Your task to perform on an android device: turn on the 24-hour format for clock Image 0: 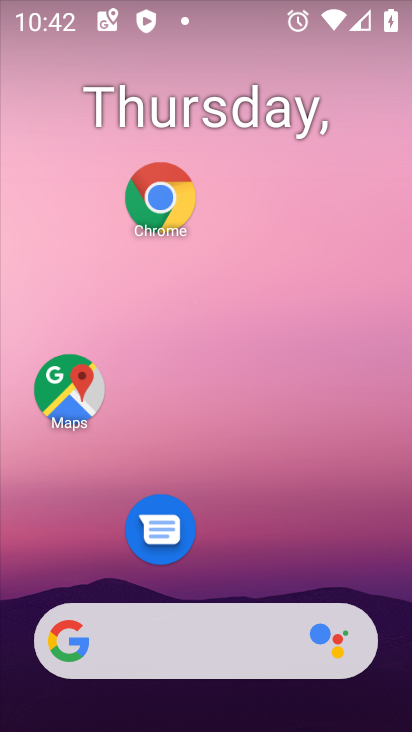
Step 0: drag from (243, 541) to (221, 116)
Your task to perform on an android device: turn on the 24-hour format for clock Image 1: 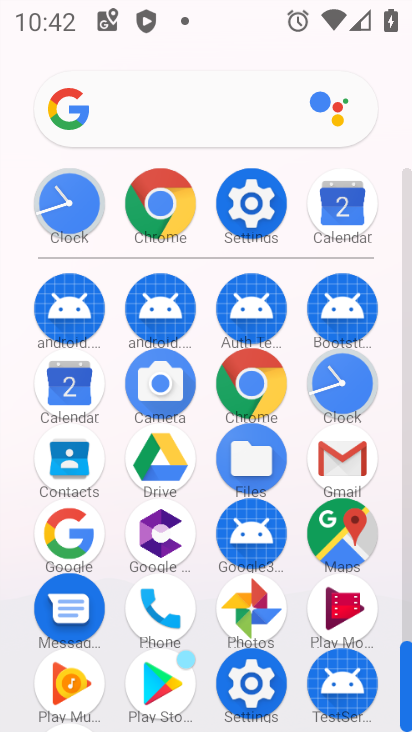
Step 1: click (343, 375)
Your task to perform on an android device: turn on the 24-hour format for clock Image 2: 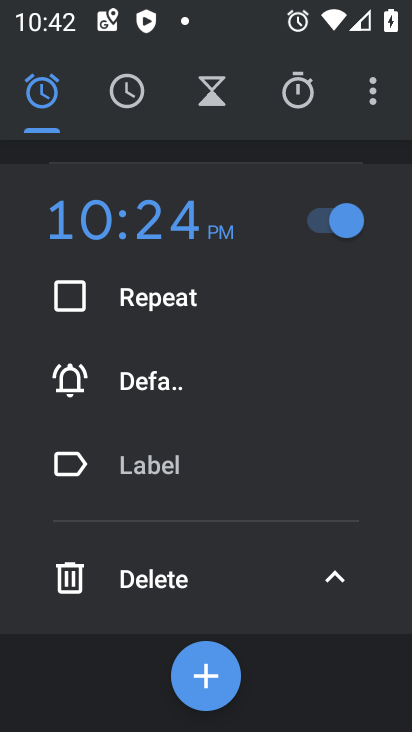
Step 2: click (369, 86)
Your task to perform on an android device: turn on the 24-hour format for clock Image 3: 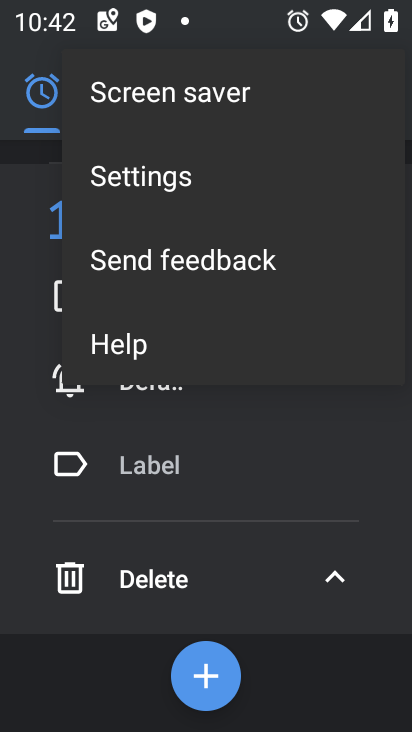
Step 3: click (160, 170)
Your task to perform on an android device: turn on the 24-hour format for clock Image 4: 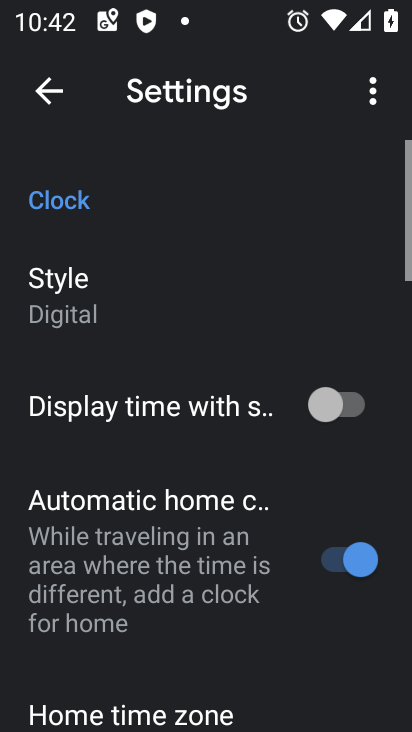
Step 4: drag from (224, 472) to (220, 144)
Your task to perform on an android device: turn on the 24-hour format for clock Image 5: 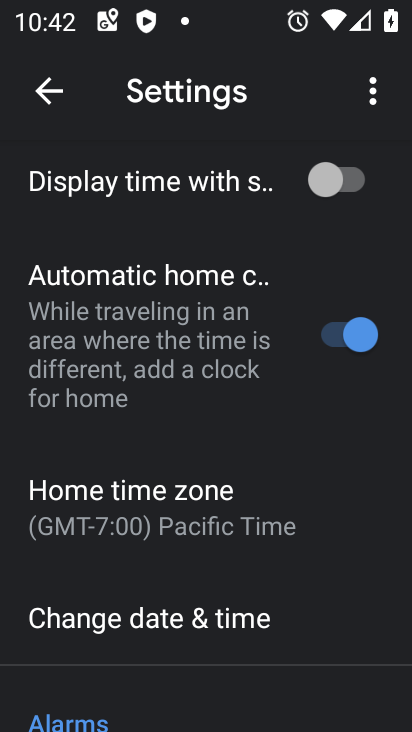
Step 5: click (168, 617)
Your task to perform on an android device: turn on the 24-hour format for clock Image 6: 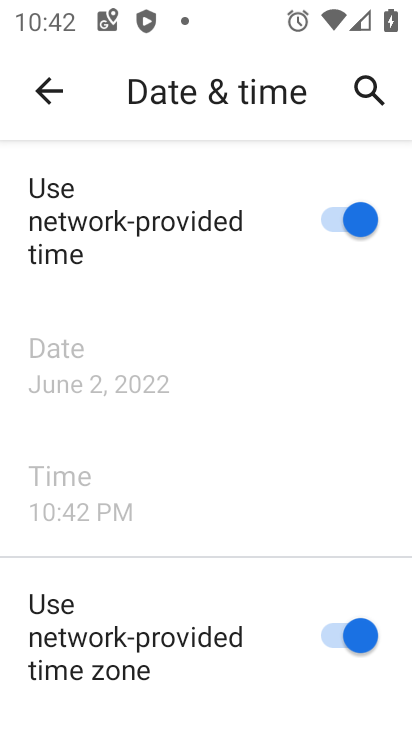
Step 6: drag from (247, 595) to (212, 225)
Your task to perform on an android device: turn on the 24-hour format for clock Image 7: 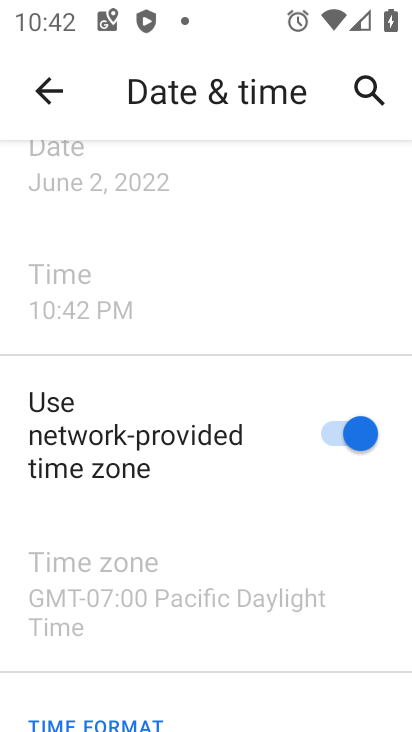
Step 7: drag from (269, 511) to (239, 178)
Your task to perform on an android device: turn on the 24-hour format for clock Image 8: 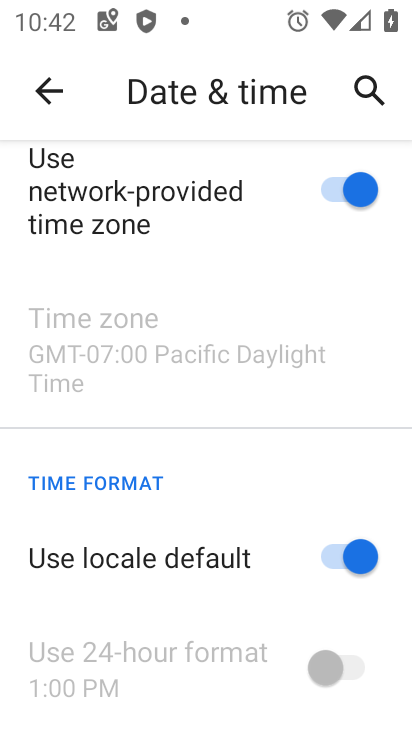
Step 8: click (347, 556)
Your task to perform on an android device: turn on the 24-hour format for clock Image 9: 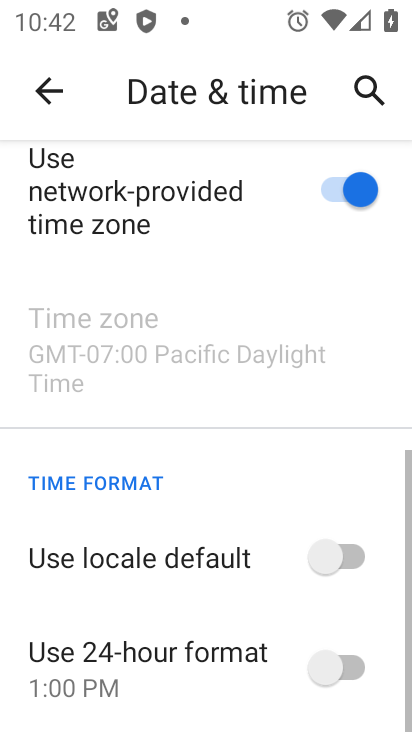
Step 9: click (320, 662)
Your task to perform on an android device: turn on the 24-hour format for clock Image 10: 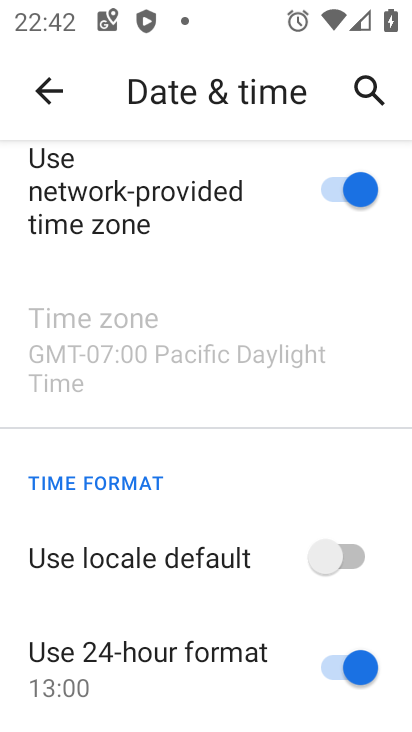
Step 10: task complete